Your task to perform on an android device: Clear the shopping cart on bestbuy. Search for "alienware area 51" on bestbuy, select the first entry, add it to the cart, then select checkout. Image 0: 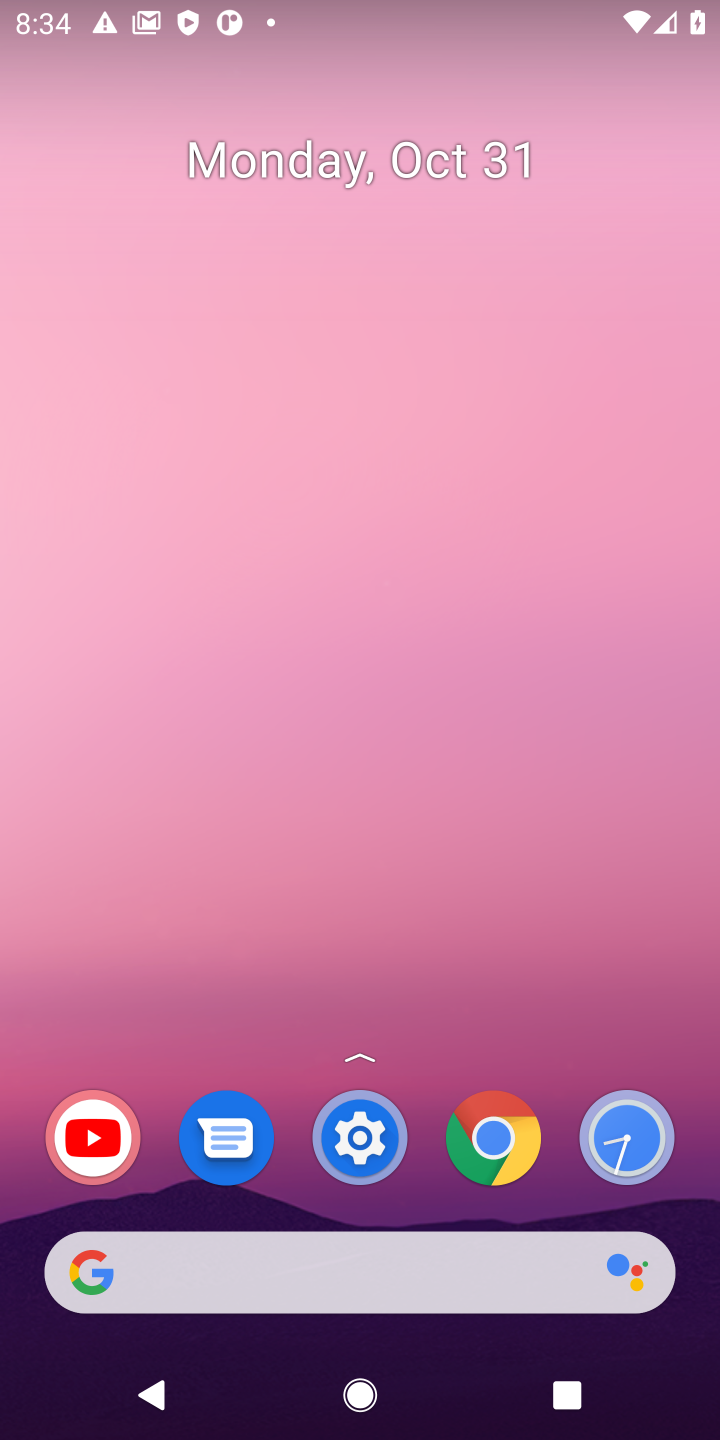
Step 0: task impossible